Your task to perform on an android device: Open settings Image 0: 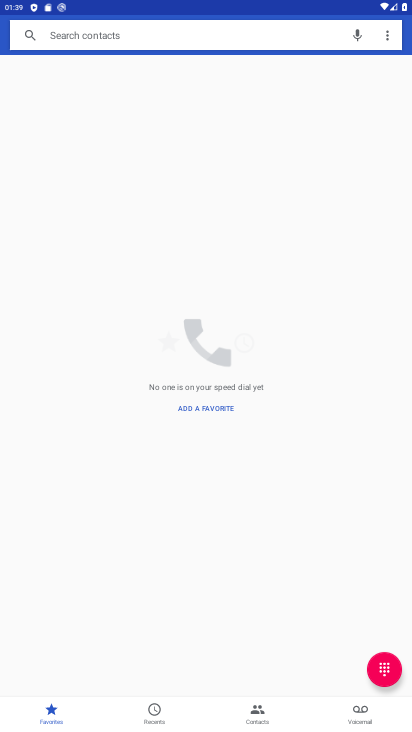
Step 0: press home button
Your task to perform on an android device: Open settings Image 1: 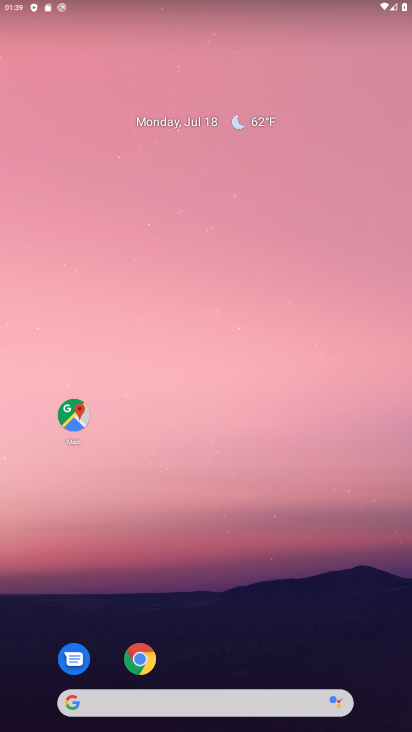
Step 1: drag from (294, 407) to (271, 90)
Your task to perform on an android device: Open settings Image 2: 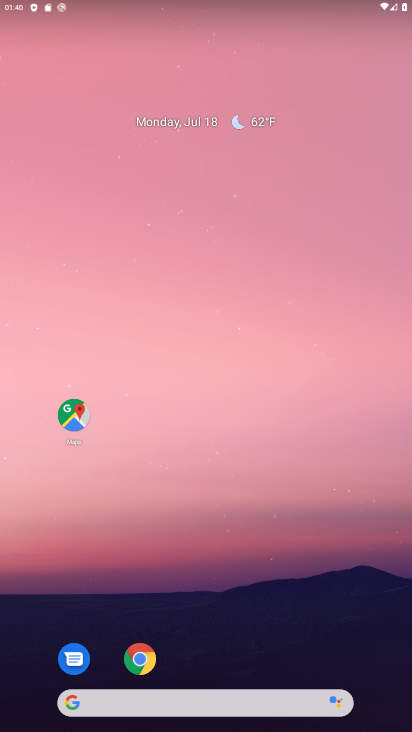
Step 2: drag from (294, 577) to (247, 2)
Your task to perform on an android device: Open settings Image 3: 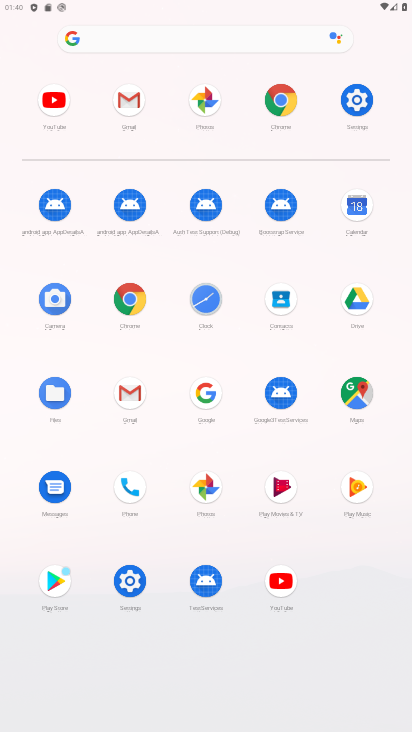
Step 3: click (358, 96)
Your task to perform on an android device: Open settings Image 4: 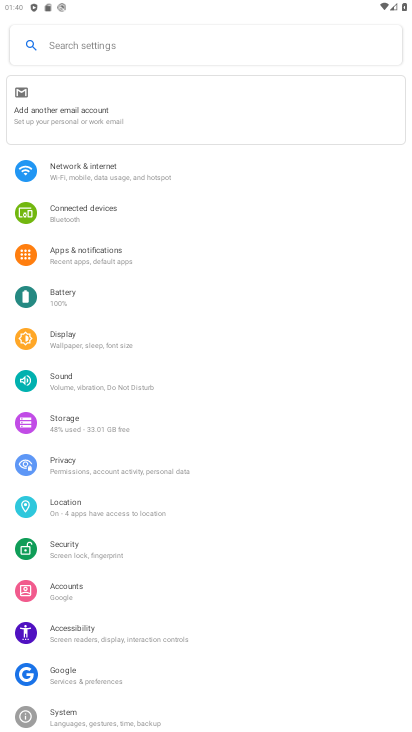
Step 4: task complete